Your task to perform on an android device: set the timer Image 0: 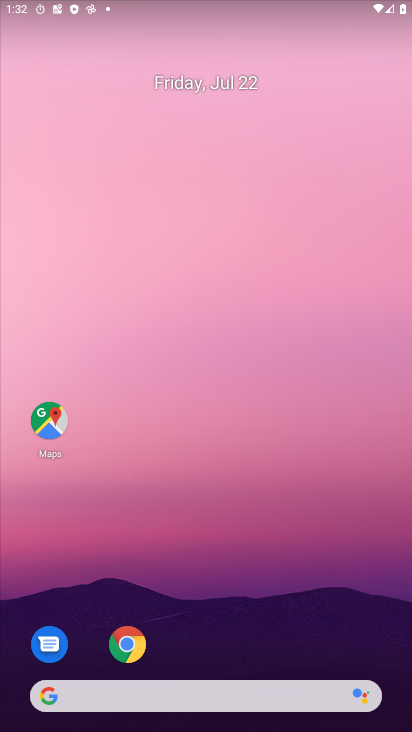
Step 0: click (14, 239)
Your task to perform on an android device: set the timer Image 1: 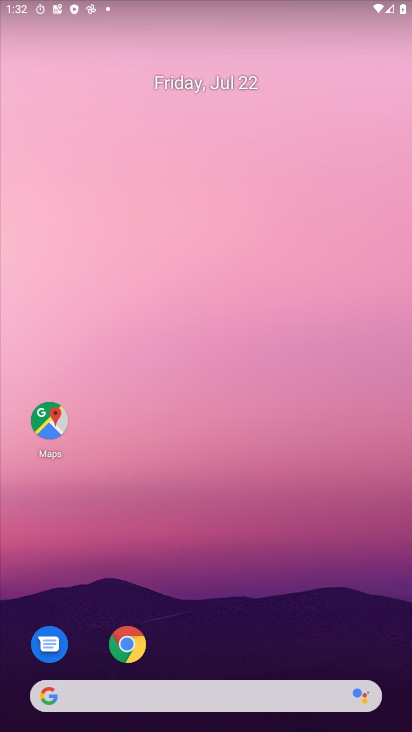
Step 1: click (298, 11)
Your task to perform on an android device: set the timer Image 2: 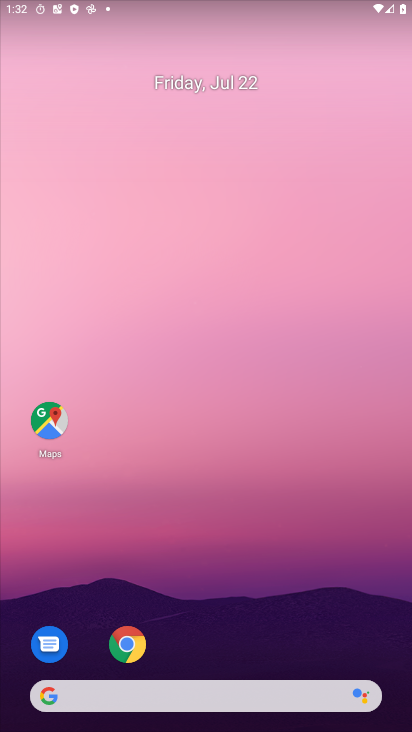
Step 2: drag from (267, 701) to (408, 472)
Your task to perform on an android device: set the timer Image 3: 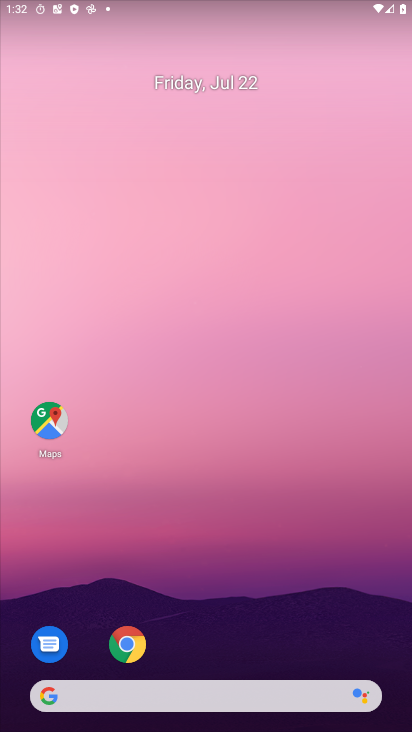
Step 3: drag from (259, 707) to (259, 99)
Your task to perform on an android device: set the timer Image 4: 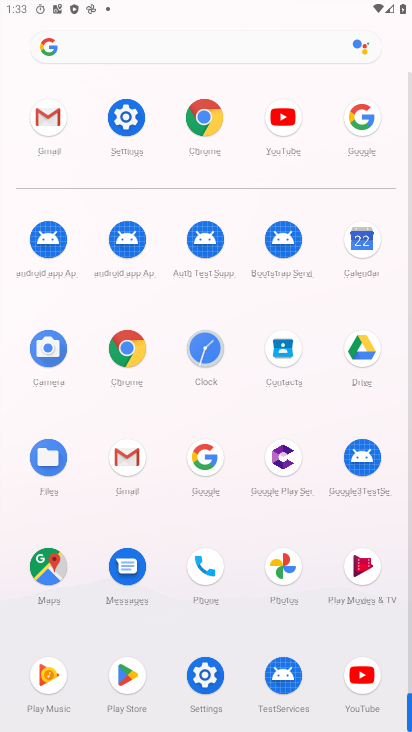
Step 4: click (216, 376)
Your task to perform on an android device: set the timer Image 5: 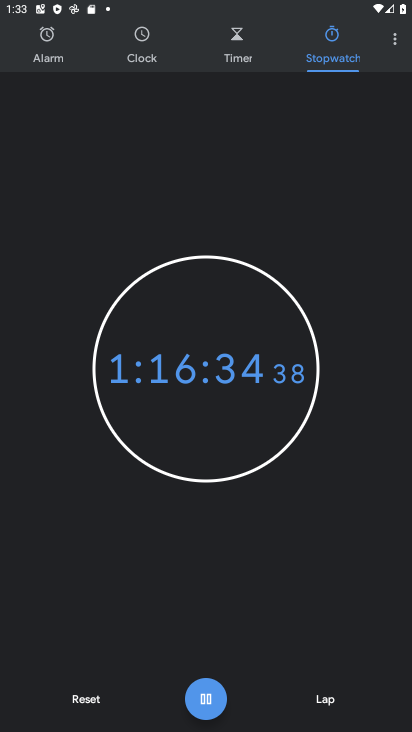
Step 5: click (239, 67)
Your task to perform on an android device: set the timer Image 6: 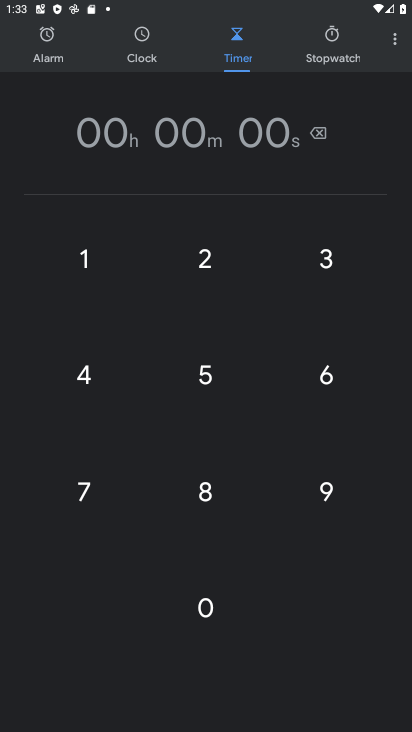
Step 6: click (196, 262)
Your task to perform on an android device: set the timer Image 7: 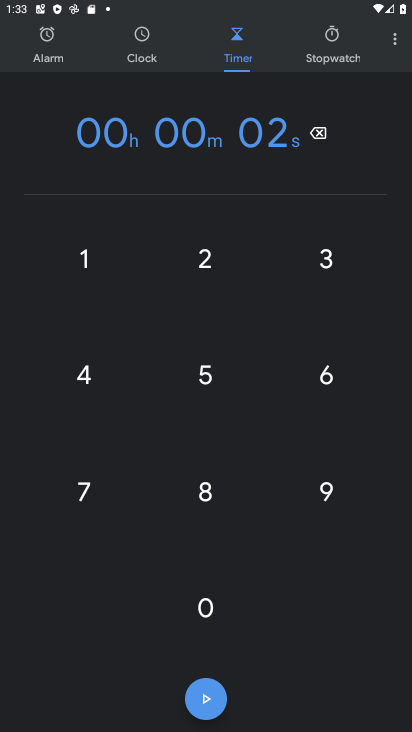
Step 7: click (207, 712)
Your task to perform on an android device: set the timer Image 8: 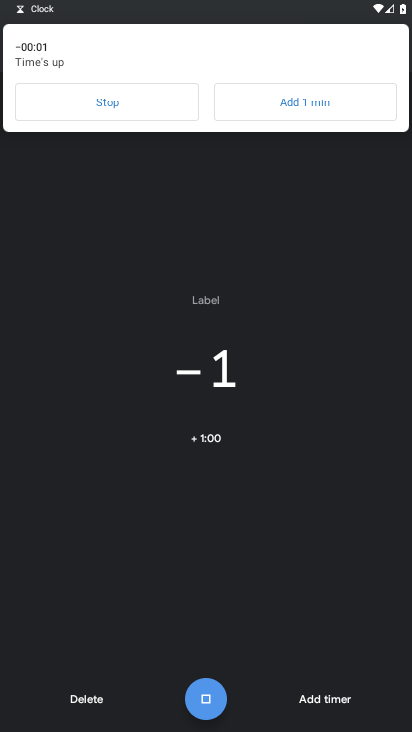
Step 8: task complete